Your task to perform on an android device: set default search engine in the chrome app Image 0: 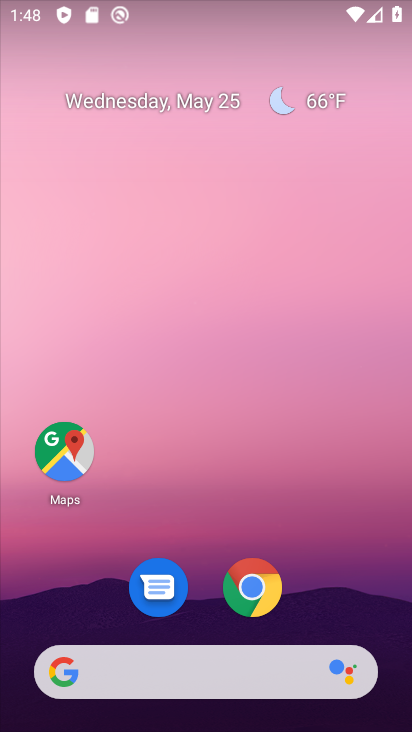
Step 0: drag from (379, 616) to (391, 214)
Your task to perform on an android device: set default search engine in the chrome app Image 1: 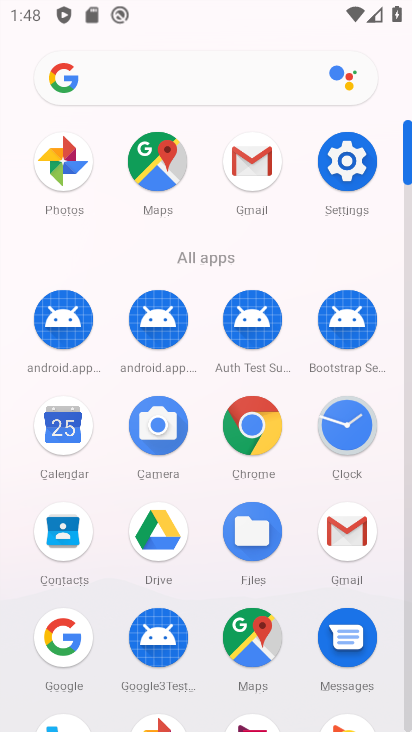
Step 1: click (273, 434)
Your task to perform on an android device: set default search engine in the chrome app Image 2: 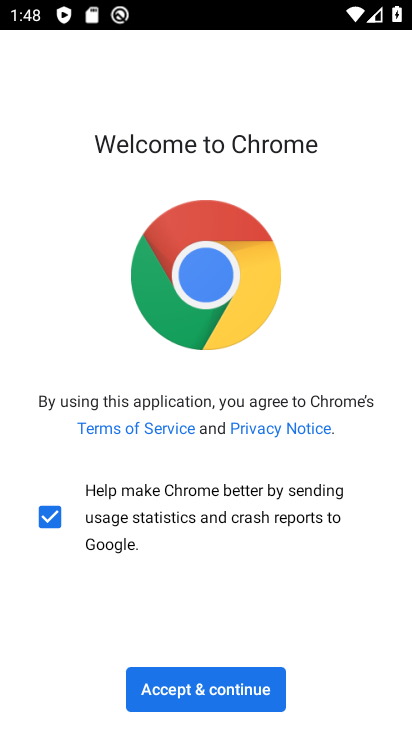
Step 2: click (204, 682)
Your task to perform on an android device: set default search engine in the chrome app Image 3: 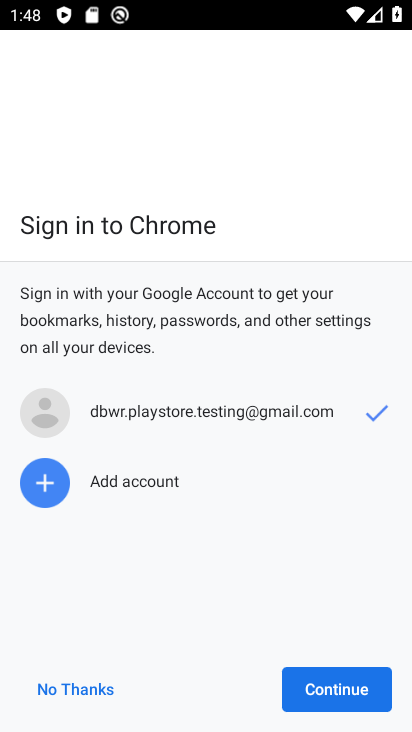
Step 3: click (309, 691)
Your task to perform on an android device: set default search engine in the chrome app Image 4: 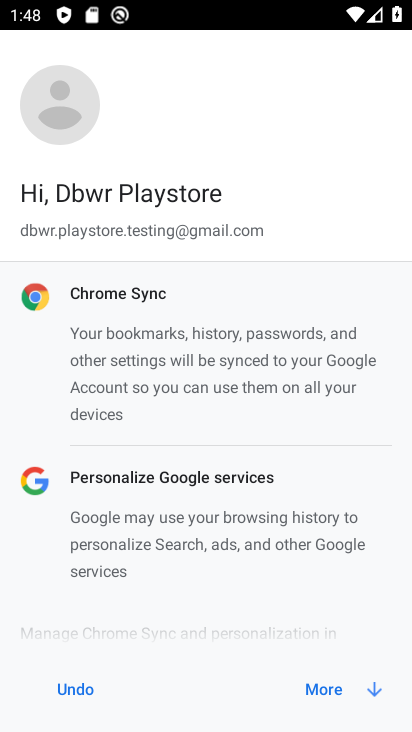
Step 4: click (309, 691)
Your task to perform on an android device: set default search engine in the chrome app Image 5: 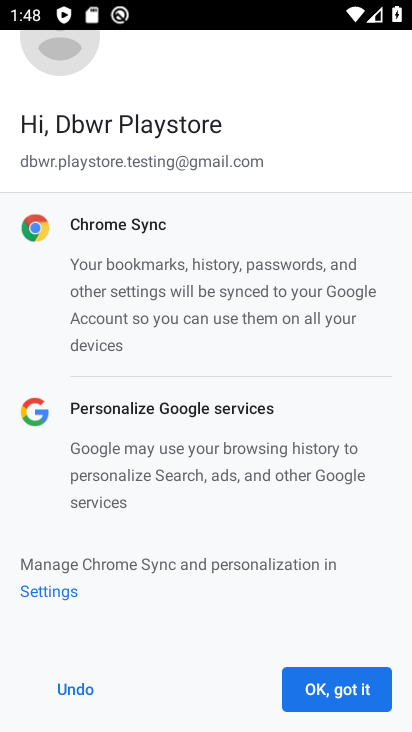
Step 5: click (309, 691)
Your task to perform on an android device: set default search engine in the chrome app Image 6: 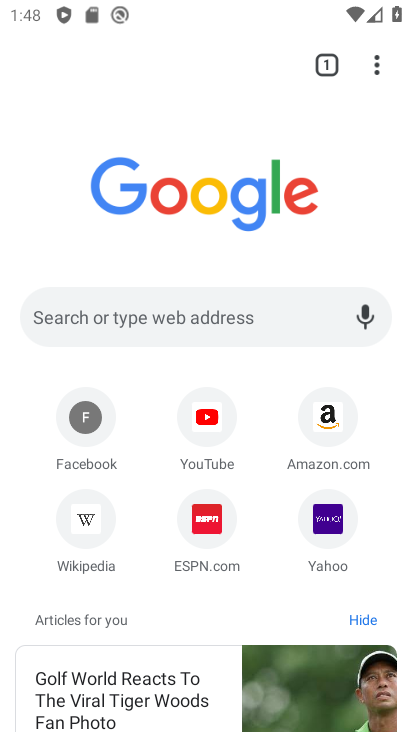
Step 6: click (378, 69)
Your task to perform on an android device: set default search engine in the chrome app Image 7: 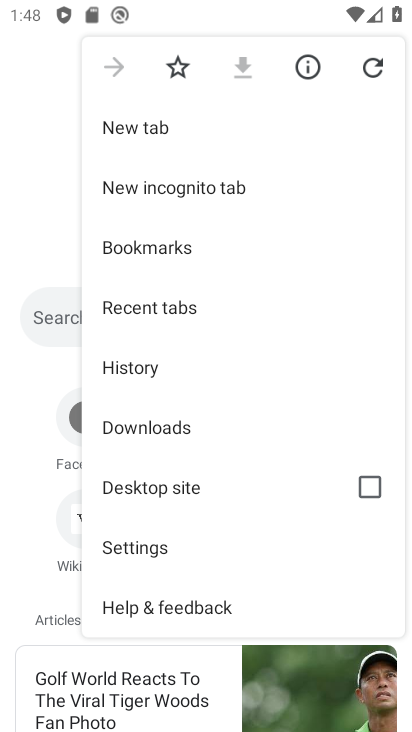
Step 7: click (162, 553)
Your task to perform on an android device: set default search engine in the chrome app Image 8: 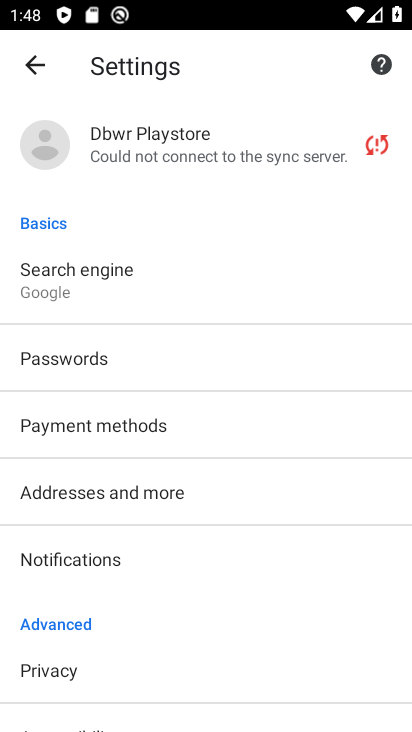
Step 8: drag from (315, 600) to (341, 437)
Your task to perform on an android device: set default search engine in the chrome app Image 9: 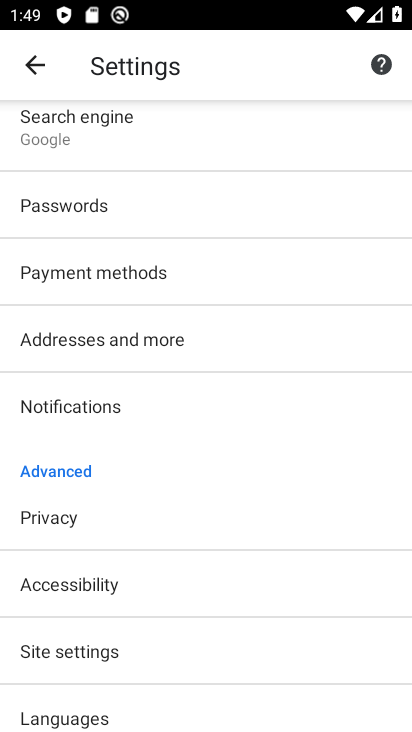
Step 9: drag from (334, 583) to (338, 482)
Your task to perform on an android device: set default search engine in the chrome app Image 10: 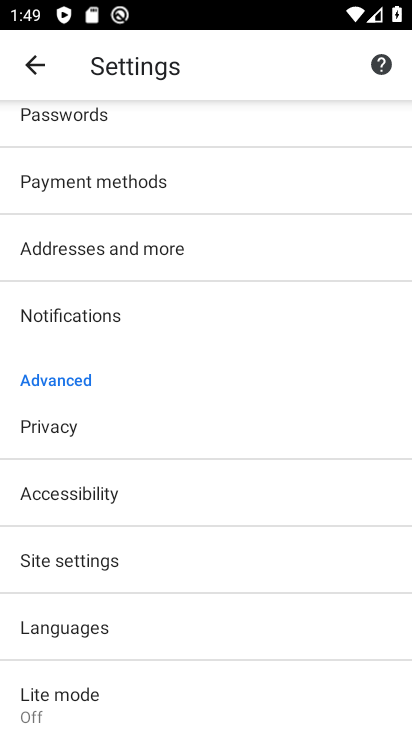
Step 10: drag from (329, 603) to (336, 483)
Your task to perform on an android device: set default search engine in the chrome app Image 11: 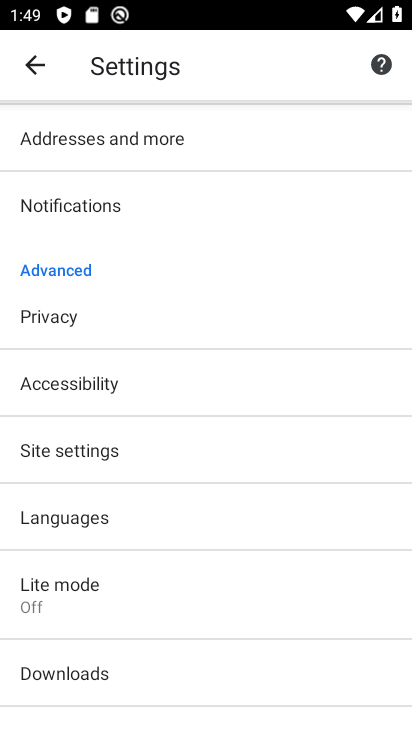
Step 11: drag from (324, 590) to (322, 500)
Your task to perform on an android device: set default search engine in the chrome app Image 12: 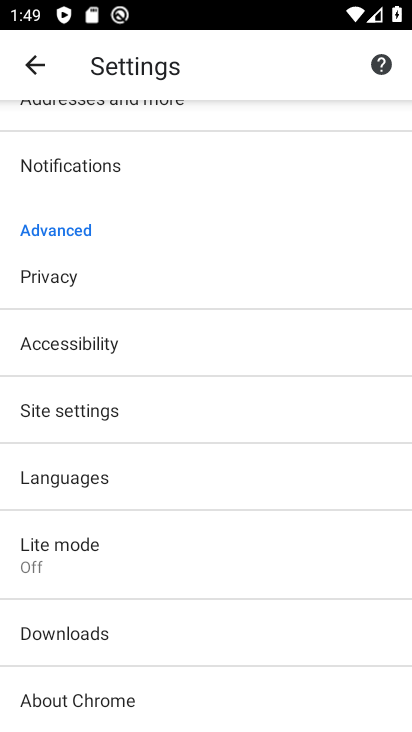
Step 12: drag from (308, 605) to (318, 487)
Your task to perform on an android device: set default search engine in the chrome app Image 13: 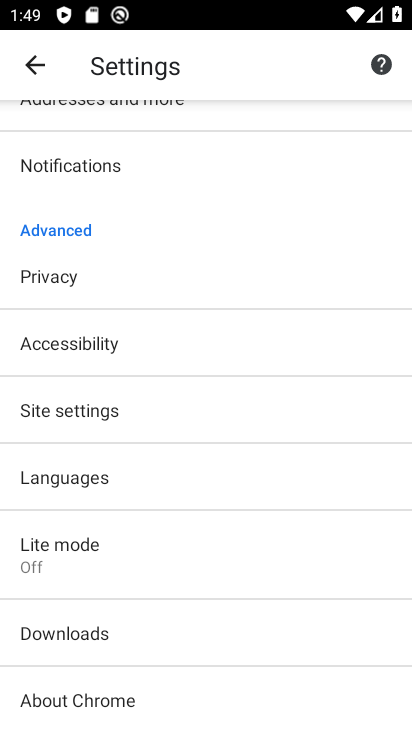
Step 13: drag from (305, 594) to (314, 466)
Your task to perform on an android device: set default search engine in the chrome app Image 14: 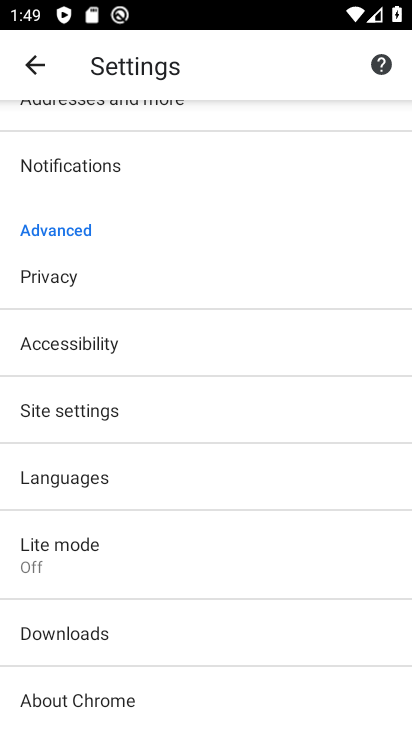
Step 14: drag from (288, 591) to (295, 548)
Your task to perform on an android device: set default search engine in the chrome app Image 15: 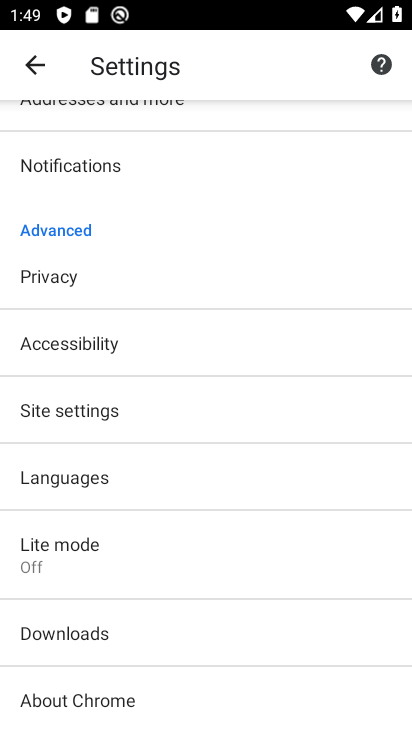
Step 15: drag from (301, 548) to (329, 387)
Your task to perform on an android device: set default search engine in the chrome app Image 16: 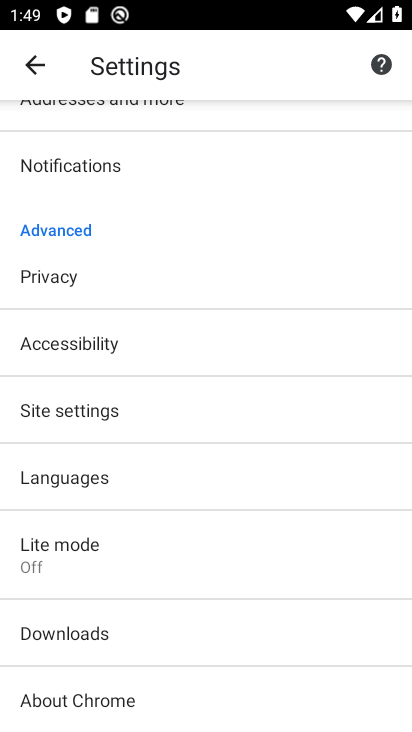
Step 16: drag from (307, 213) to (298, 388)
Your task to perform on an android device: set default search engine in the chrome app Image 17: 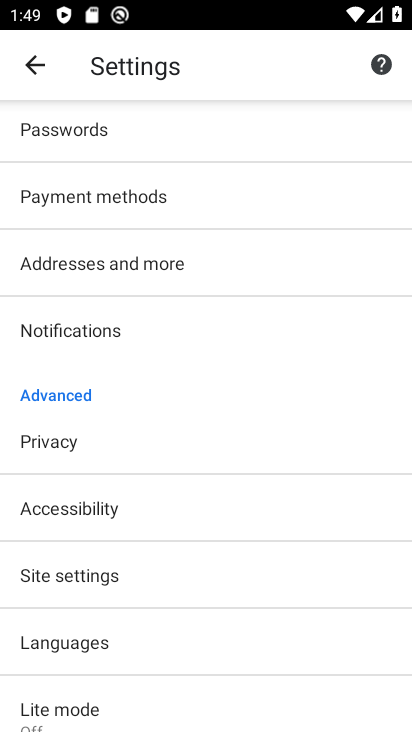
Step 17: drag from (298, 234) to (300, 399)
Your task to perform on an android device: set default search engine in the chrome app Image 18: 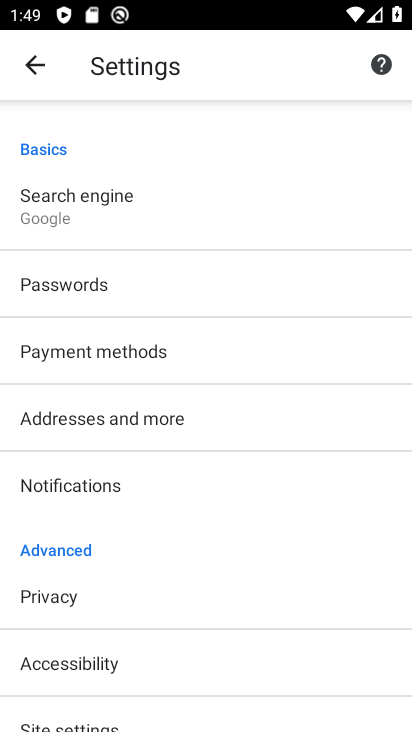
Step 18: drag from (249, 255) to (248, 405)
Your task to perform on an android device: set default search engine in the chrome app Image 19: 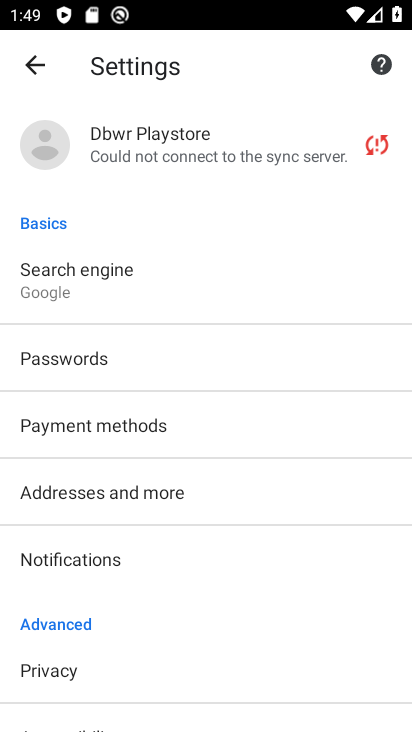
Step 19: click (87, 297)
Your task to perform on an android device: set default search engine in the chrome app Image 20: 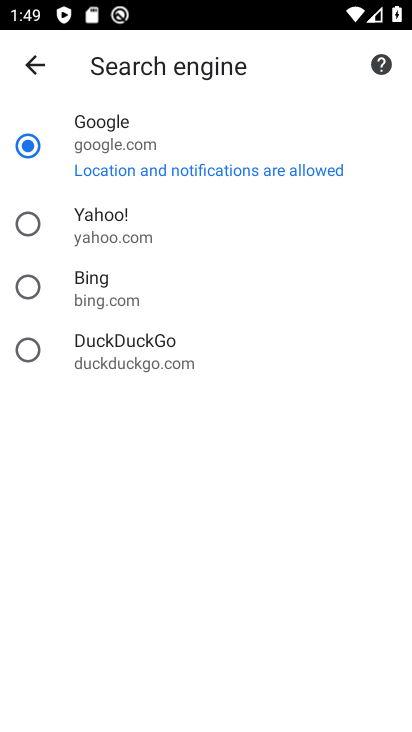
Step 20: click (92, 295)
Your task to perform on an android device: set default search engine in the chrome app Image 21: 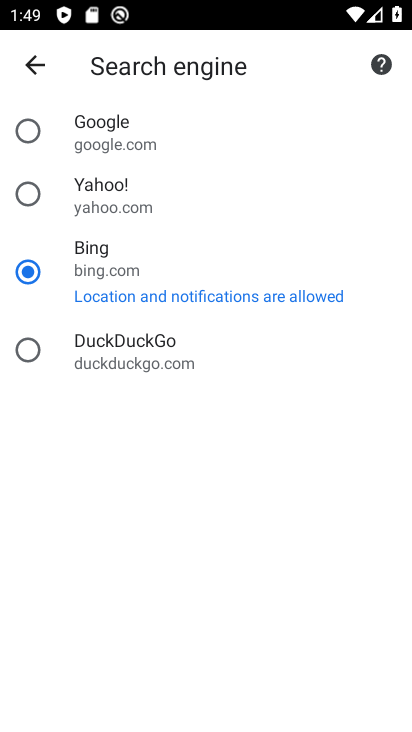
Step 21: task complete